Your task to perform on an android device: toggle javascript in the chrome app Image 0: 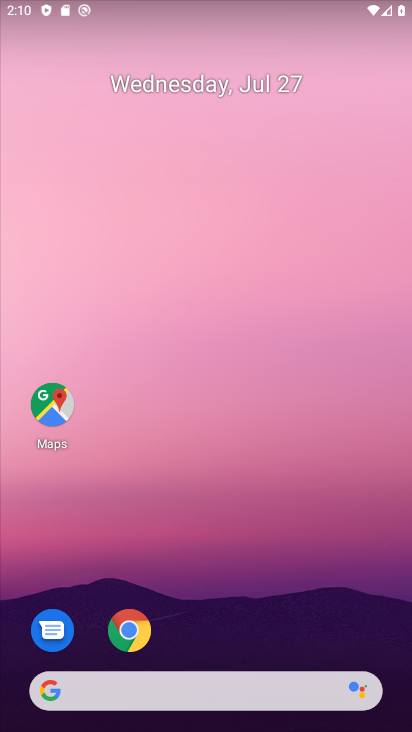
Step 0: click (122, 627)
Your task to perform on an android device: toggle javascript in the chrome app Image 1: 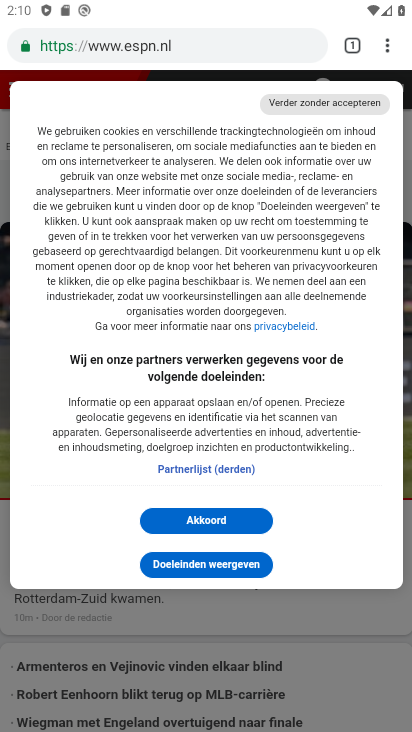
Step 1: click (392, 46)
Your task to perform on an android device: toggle javascript in the chrome app Image 2: 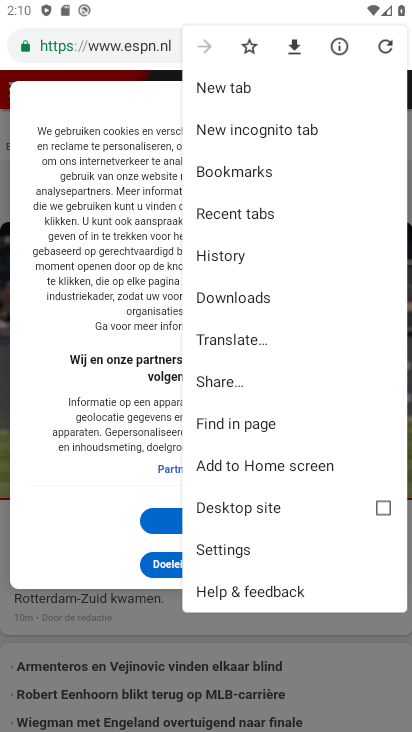
Step 2: click (258, 553)
Your task to perform on an android device: toggle javascript in the chrome app Image 3: 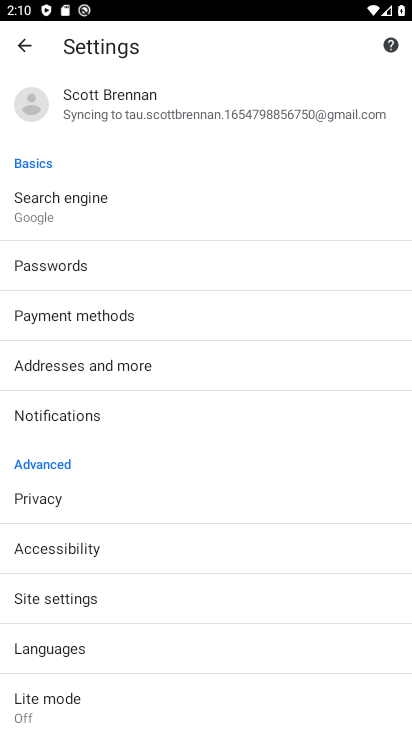
Step 3: click (64, 594)
Your task to perform on an android device: toggle javascript in the chrome app Image 4: 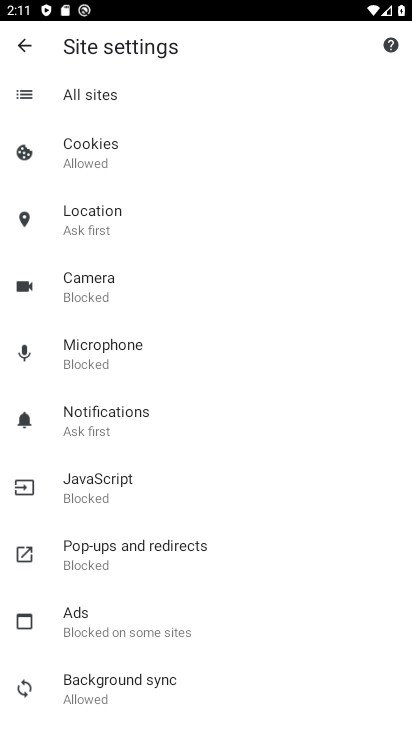
Step 4: click (160, 479)
Your task to perform on an android device: toggle javascript in the chrome app Image 5: 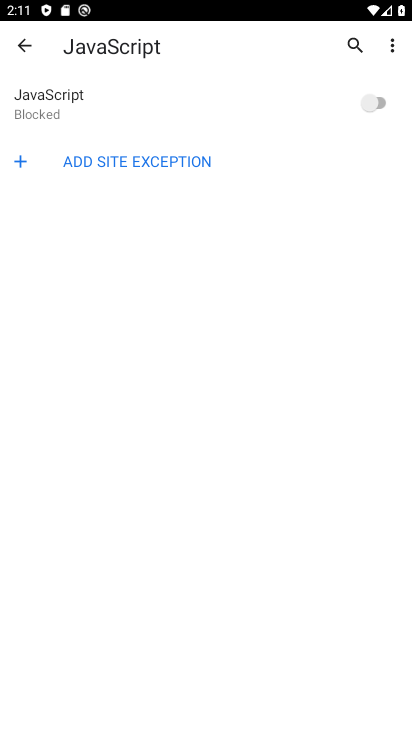
Step 5: click (370, 100)
Your task to perform on an android device: toggle javascript in the chrome app Image 6: 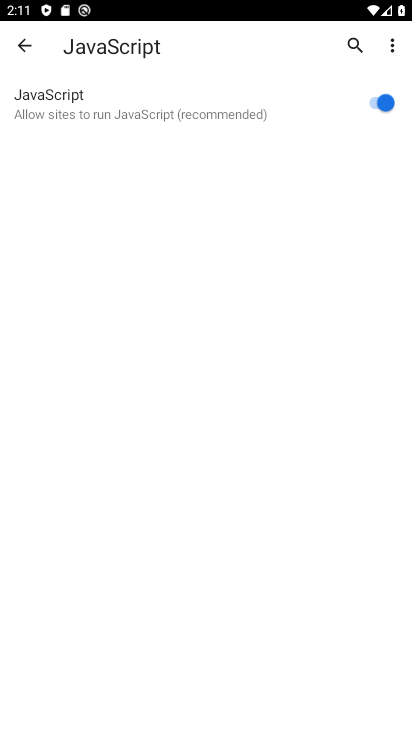
Step 6: task complete